Your task to perform on an android device: check battery use Image 0: 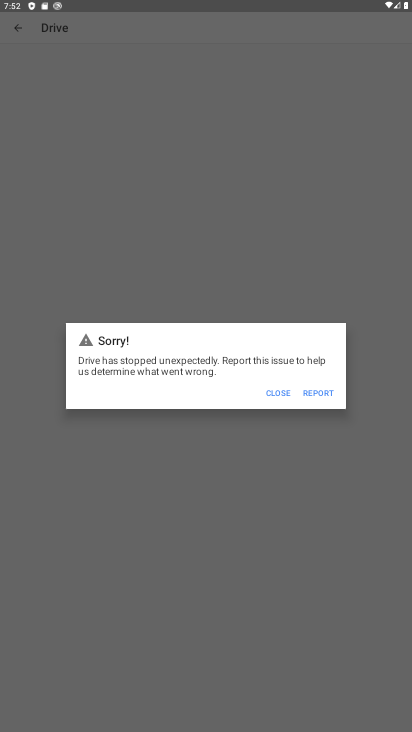
Step 0: press home button
Your task to perform on an android device: check battery use Image 1: 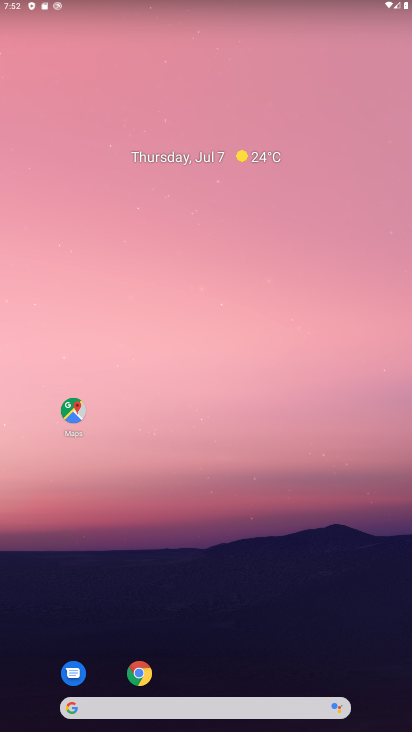
Step 1: drag from (30, 610) to (230, 54)
Your task to perform on an android device: check battery use Image 2: 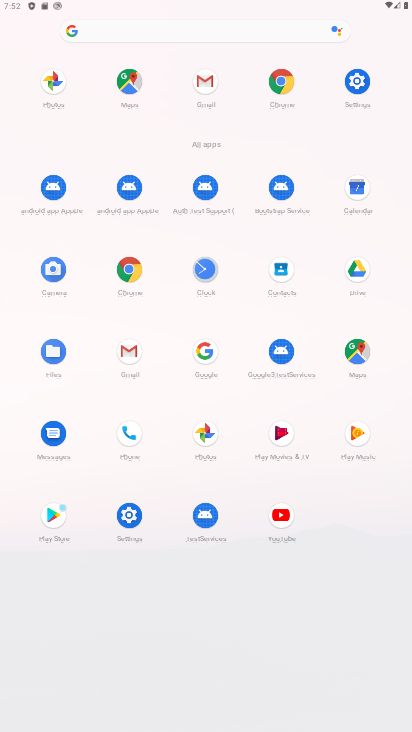
Step 2: click (212, 280)
Your task to perform on an android device: check battery use Image 3: 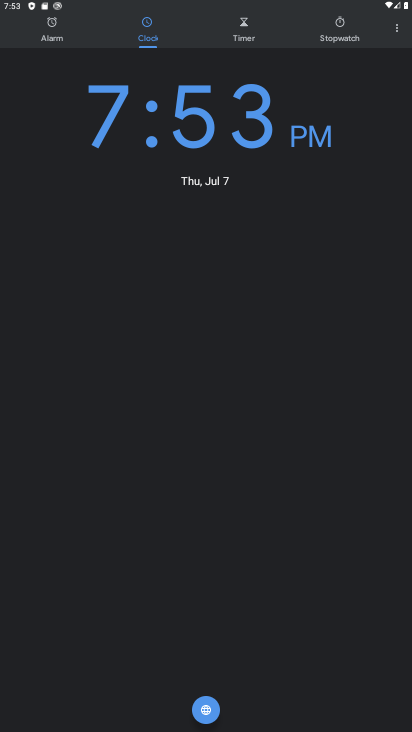
Step 3: press home button
Your task to perform on an android device: check battery use Image 4: 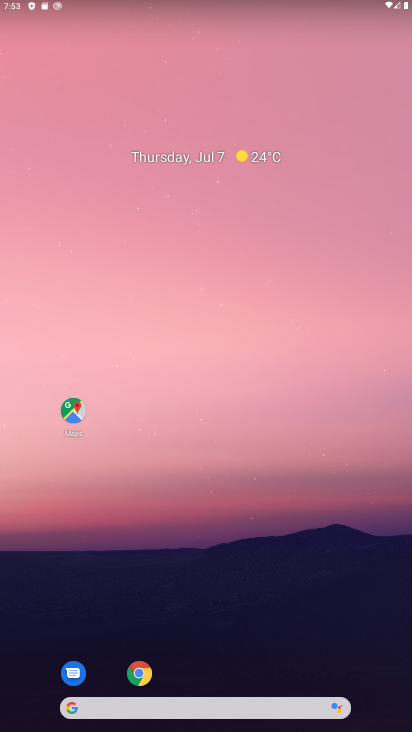
Step 4: drag from (196, 383) to (327, 64)
Your task to perform on an android device: check battery use Image 5: 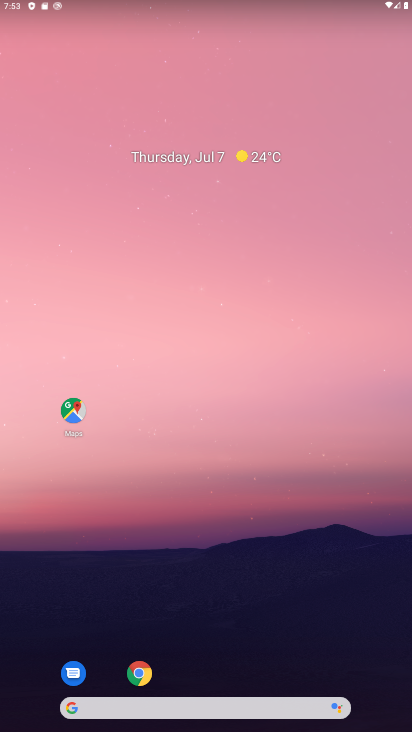
Step 5: drag from (3, 623) to (245, 130)
Your task to perform on an android device: check battery use Image 6: 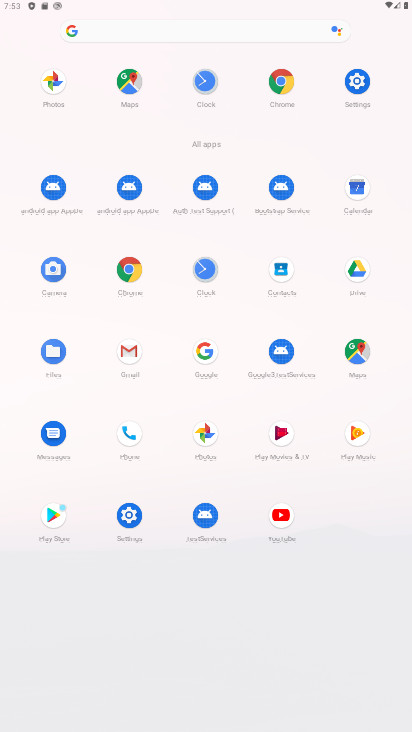
Step 6: click (355, 90)
Your task to perform on an android device: check battery use Image 7: 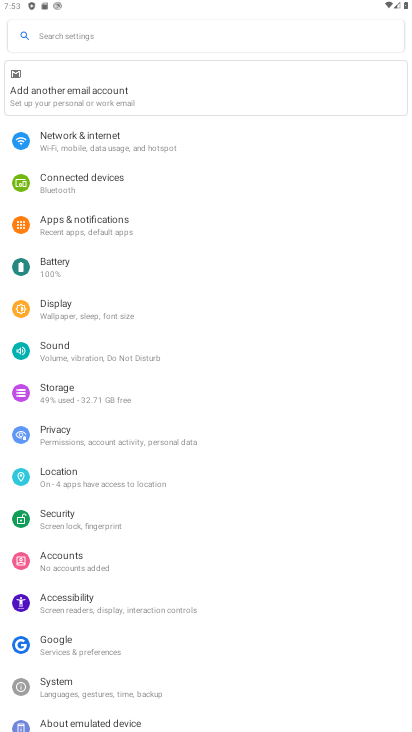
Step 7: click (71, 262)
Your task to perform on an android device: check battery use Image 8: 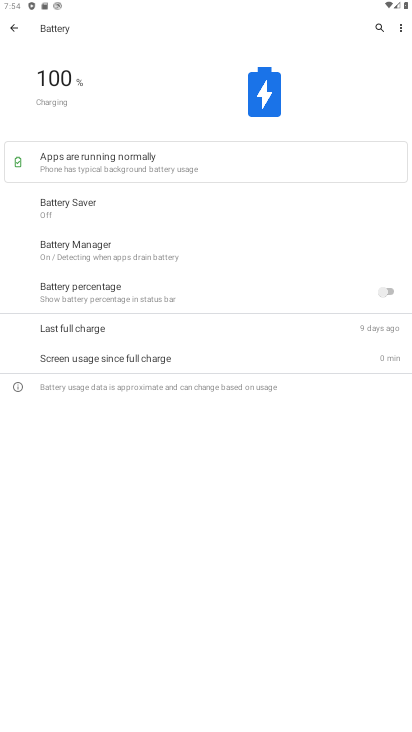
Step 8: task complete